Your task to perform on an android device: read, delete, or share a saved page in the chrome app Image 0: 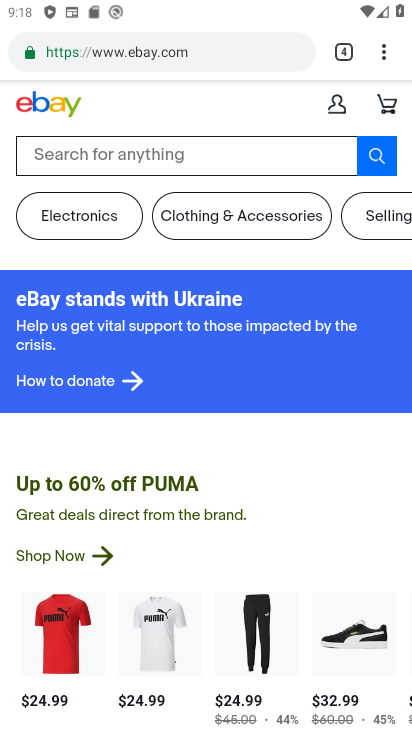
Step 0: press home button
Your task to perform on an android device: read, delete, or share a saved page in the chrome app Image 1: 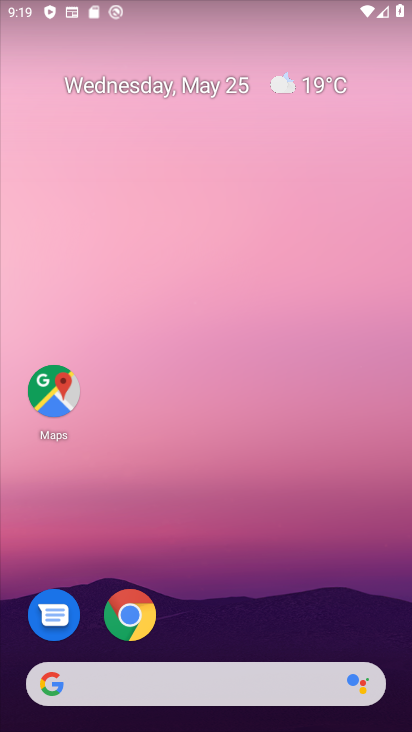
Step 1: drag from (218, 693) to (174, 63)
Your task to perform on an android device: read, delete, or share a saved page in the chrome app Image 2: 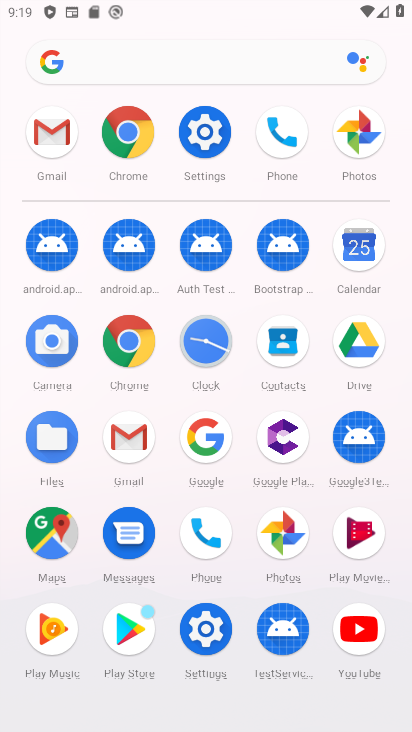
Step 2: click (123, 145)
Your task to perform on an android device: read, delete, or share a saved page in the chrome app Image 3: 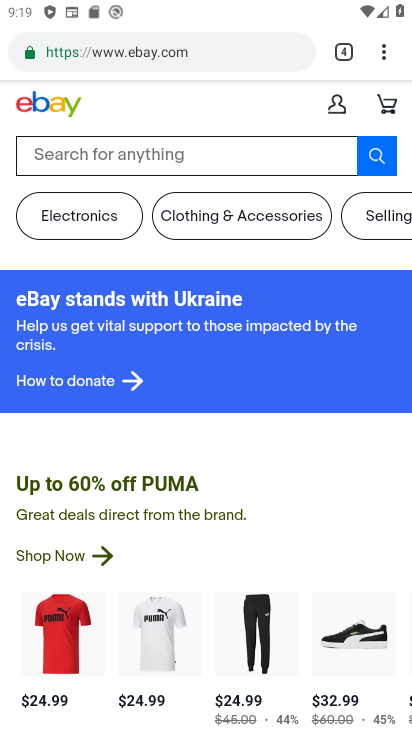
Step 3: click (370, 64)
Your task to perform on an android device: read, delete, or share a saved page in the chrome app Image 4: 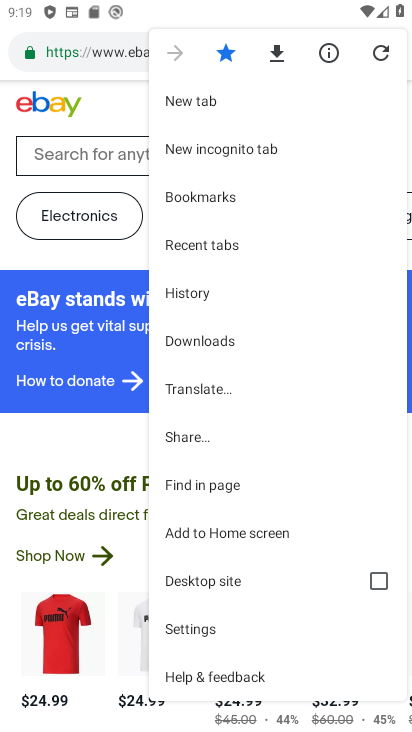
Step 4: click (197, 439)
Your task to perform on an android device: read, delete, or share a saved page in the chrome app Image 5: 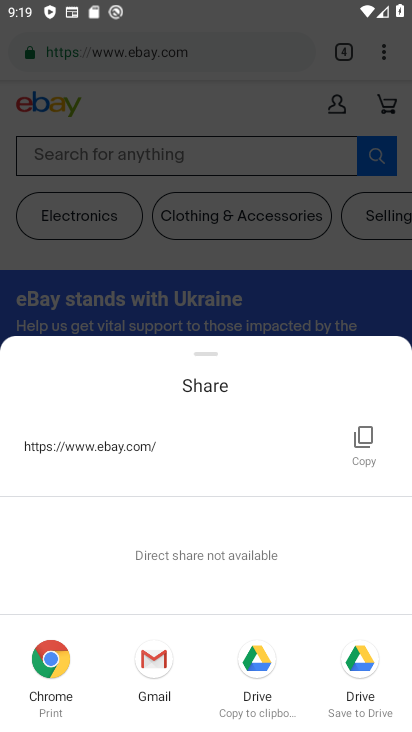
Step 5: task complete